Your task to perform on an android device: change notifications settings Image 0: 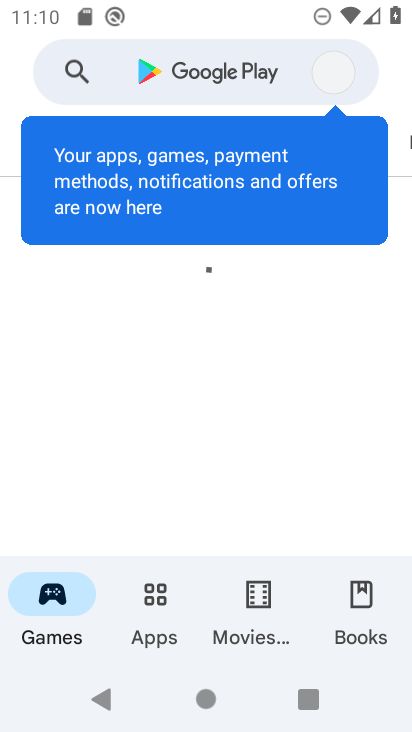
Step 0: press home button
Your task to perform on an android device: change notifications settings Image 1: 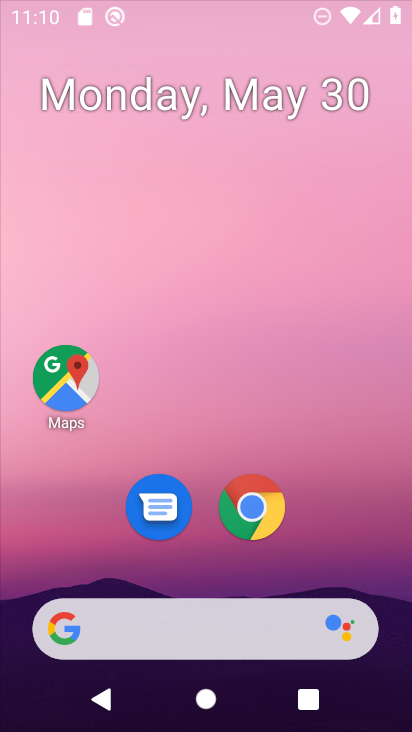
Step 1: drag from (391, 638) to (330, 166)
Your task to perform on an android device: change notifications settings Image 2: 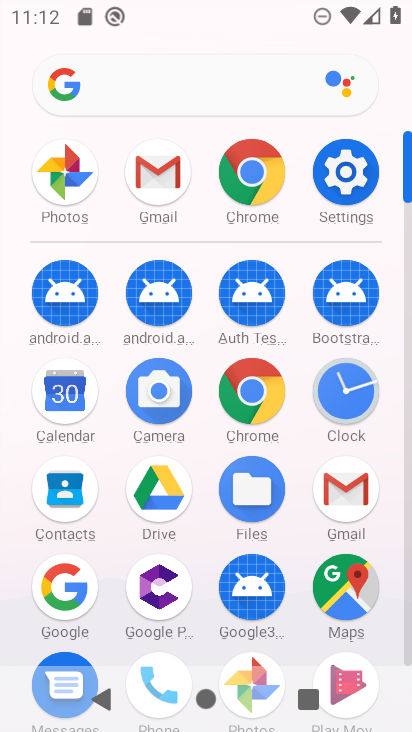
Step 2: click (362, 165)
Your task to perform on an android device: change notifications settings Image 3: 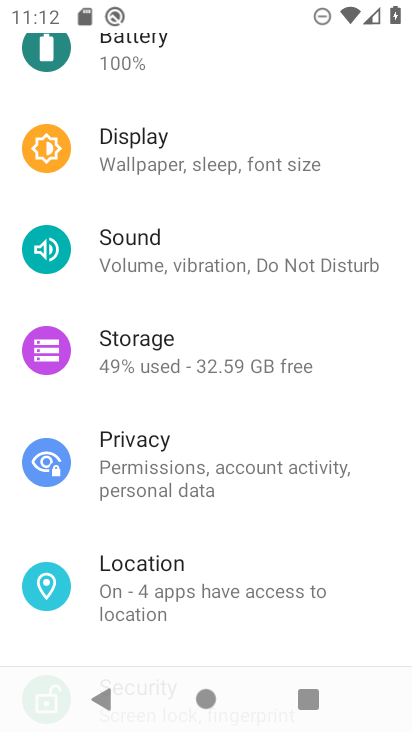
Step 3: drag from (204, 150) to (217, 633)
Your task to perform on an android device: change notifications settings Image 4: 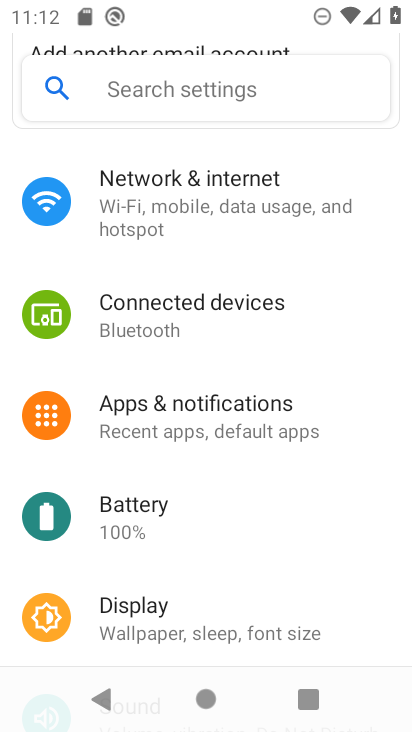
Step 4: click (236, 435)
Your task to perform on an android device: change notifications settings Image 5: 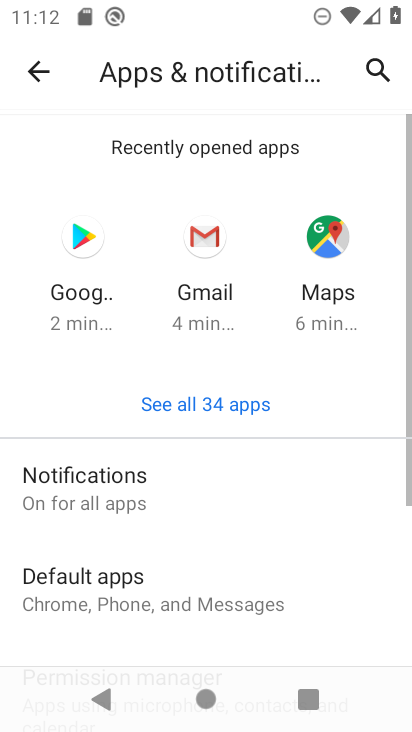
Step 5: click (167, 489)
Your task to perform on an android device: change notifications settings Image 6: 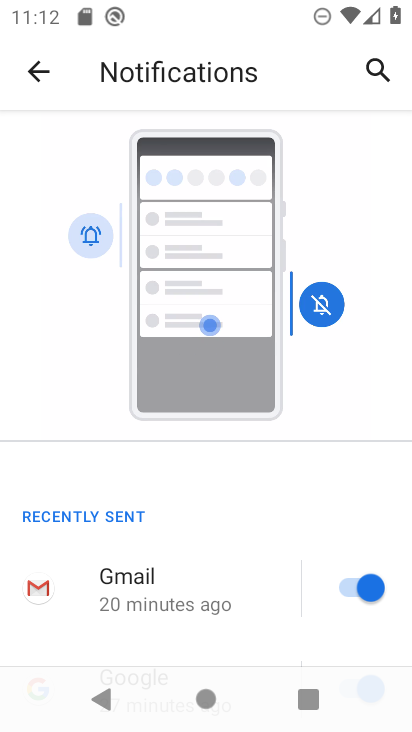
Step 6: task complete